Your task to perform on an android device: uninstall "Facebook Messenger" Image 0: 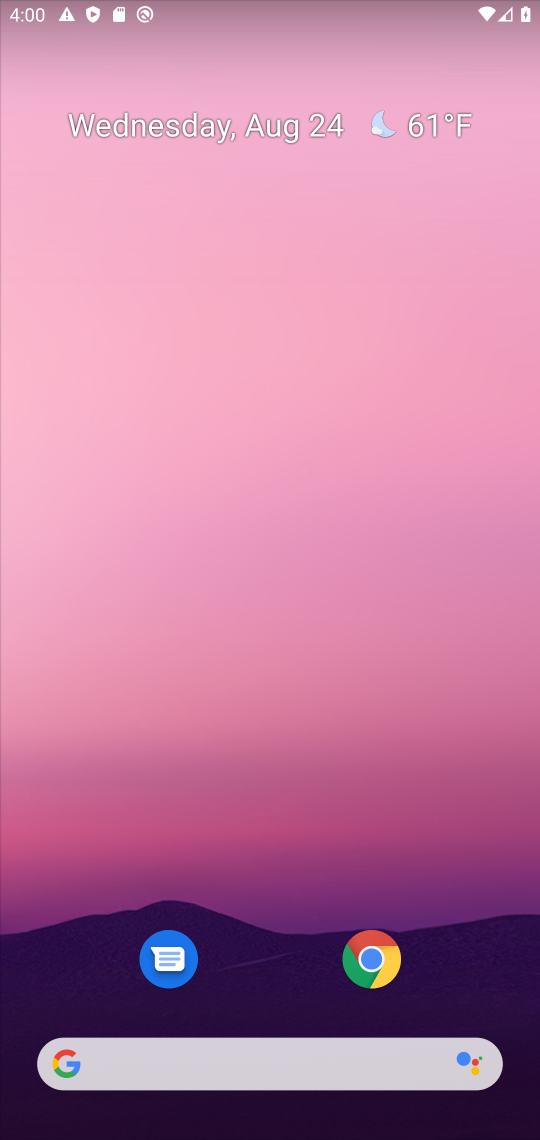
Step 0: drag from (281, 996) to (247, 0)
Your task to perform on an android device: uninstall "Facebook Messenger" Image 1: 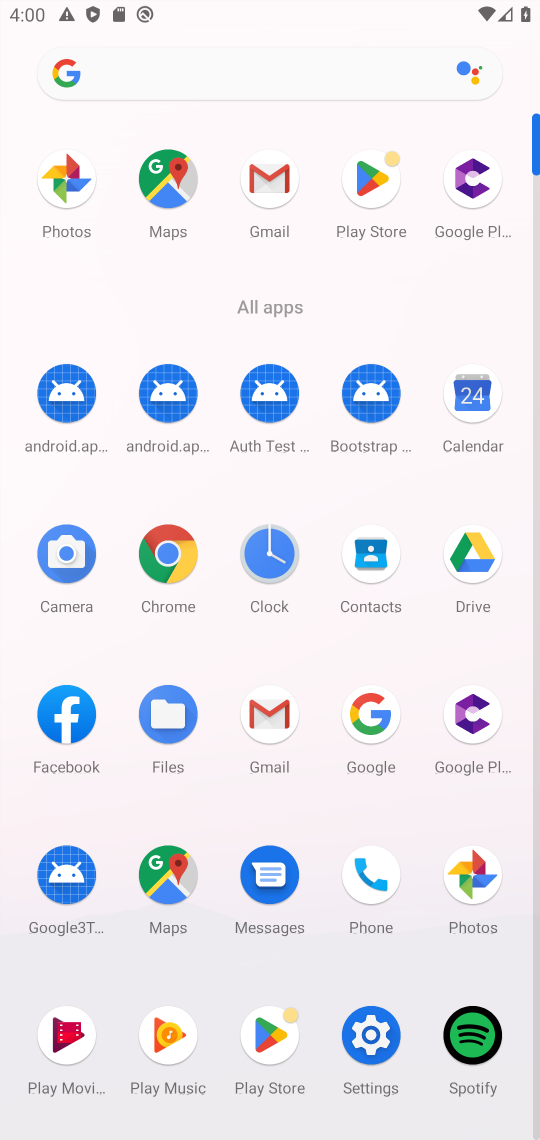
Step 1: task complete